Your task to perform on an android device: Open Google Chrome and click the shortcut for Amazon.com Image 0: 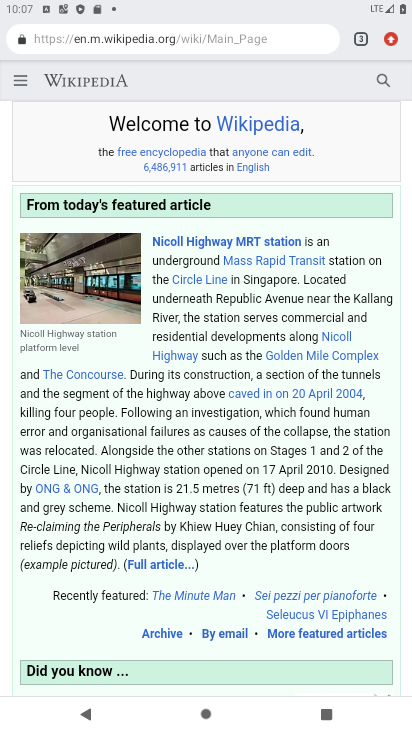
Step 0: click (385, 39)
Your task to perform on an android device: Open Google Chrome and click the shortcut for Amazon.com Image 1: 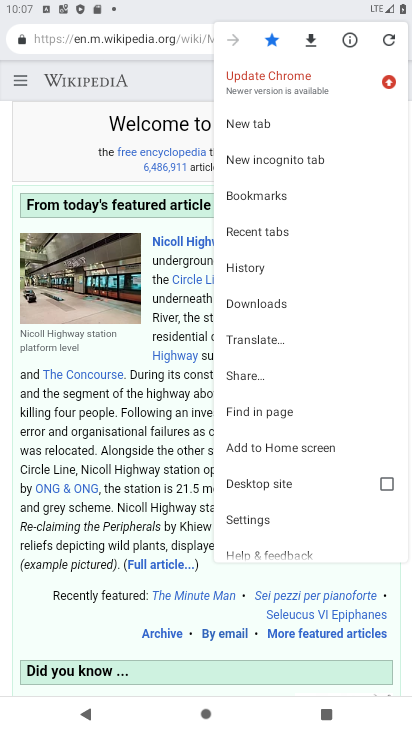
Step 1: click (244, 118)
Your task to perform on an android device: Open Google Chrome and click the shortcut for Amazon.com Image 2: 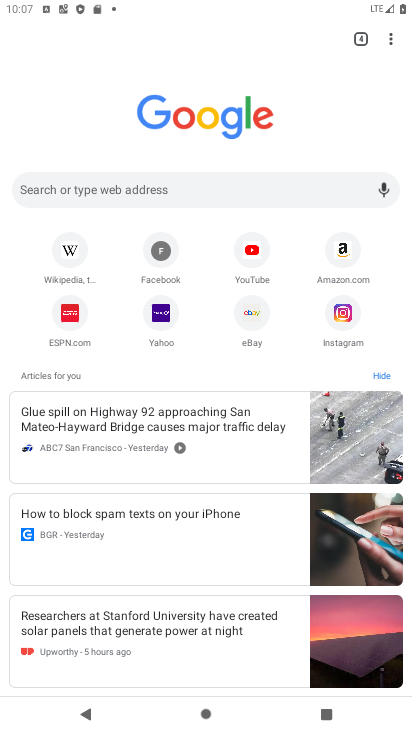
Step 2: click (338, 248)
Your task to perform on an android device: Open Google Chrome and click the shortcut for Amazon.com Image 3: 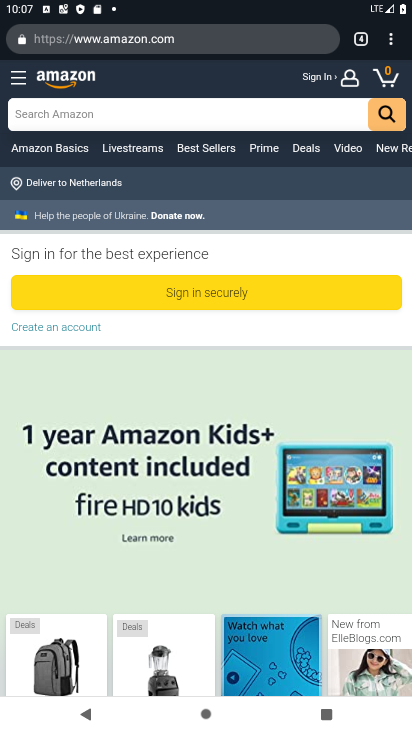
Step 3: task complete